Your task to perform on an android device: empty trash in the gmail app Image 0: 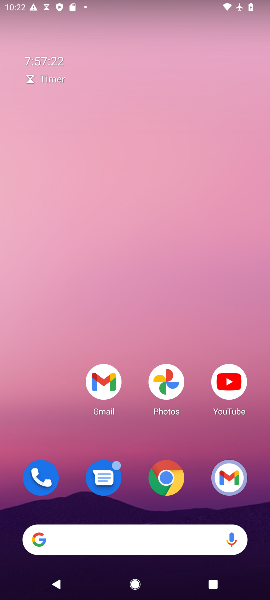
Step 0: click (111, 371)
Your task to perform on an android device: empty trash in the gmail app Image 1: 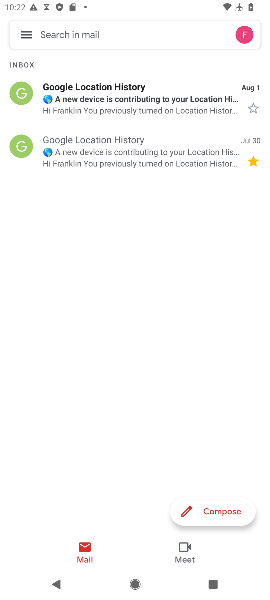
Step 1: click (22, 34)
Your task to perform on an android device: empty trash in the gmail app Image 2: 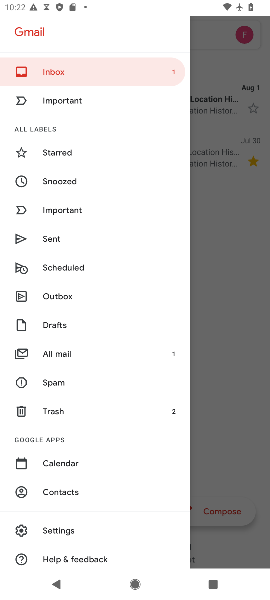
Step 2: click (73, 412)
Your task to perform on an android device: empty trash in the gmail app Image 3: 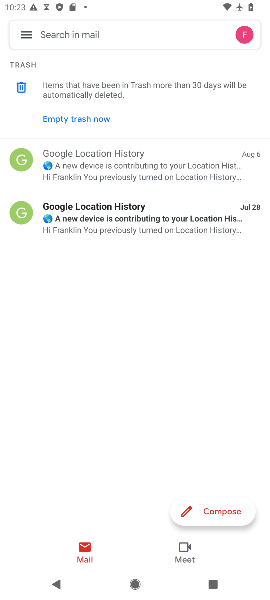
Step 3: click (82, 118)
Your task to perform on an android device: empty trash in the gmail app Image 4: 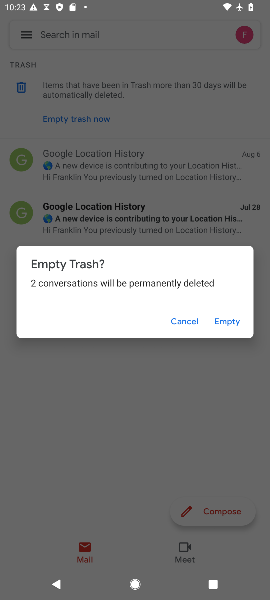
Step 4: click (227, 328)
Your task to perform on an android device: empty trash in the gmail app Image 5: 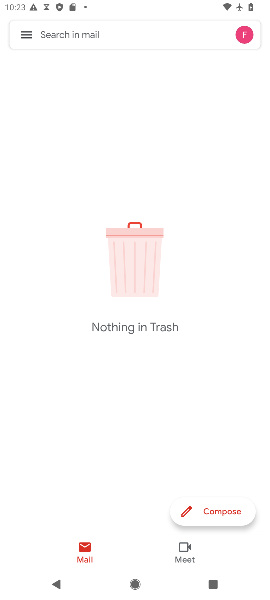
Step 5: task complete